Your task to perform on an android device: turn on javascript in the chrome app Image 0: 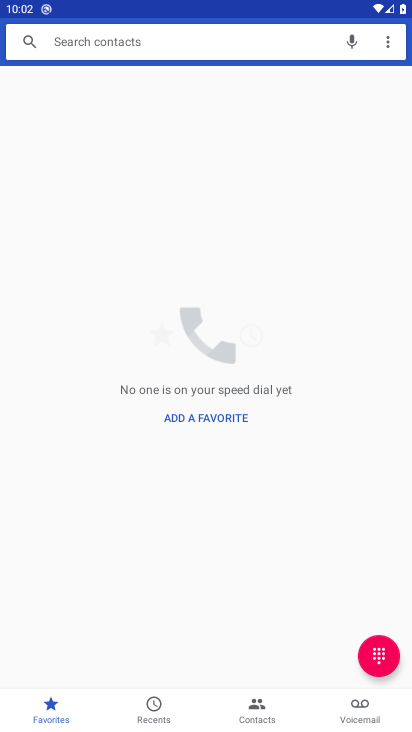
Step 0: press home button
Your task to perform on an android device: turn on javascript in the chrome app Image 1: 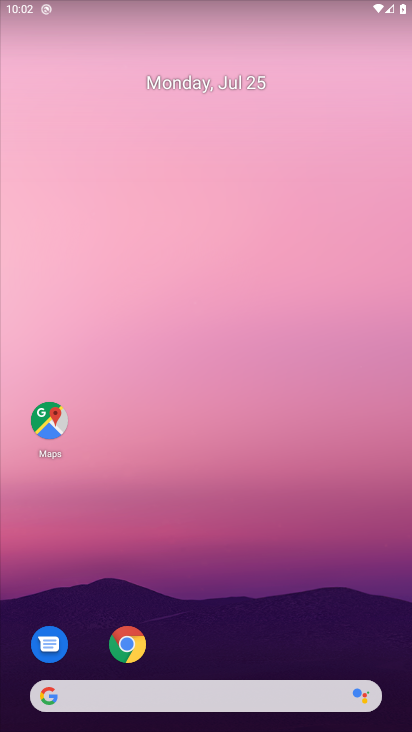
Step 1: click (123, 638)
Your task to perform on an android device: turn on javascript in the chrome app Image 2: 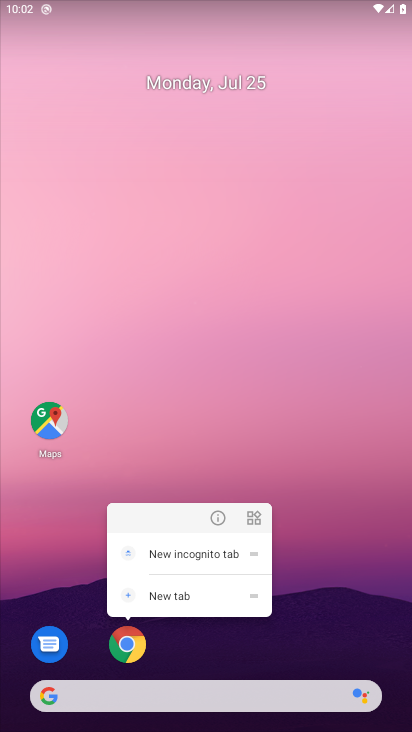
Step 2: click (125, 643)
Your task to perform on an android device: turn on javascript in the chrome app Image 3: 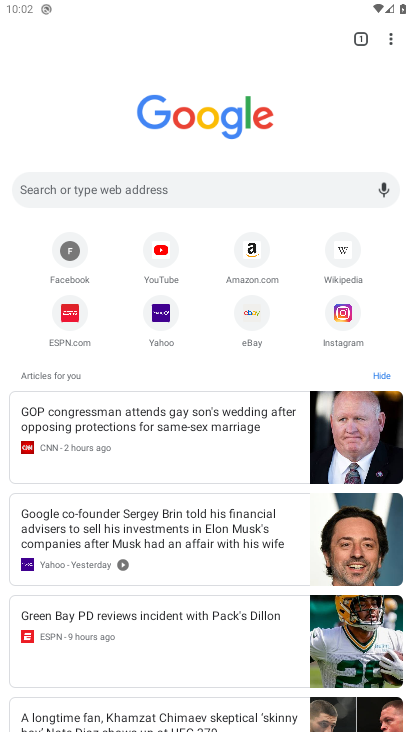
Step 3: drag from (391, 33) to (262, 323)
Your task to perform on an android device: turn on javascript in the chrome app Image 4: 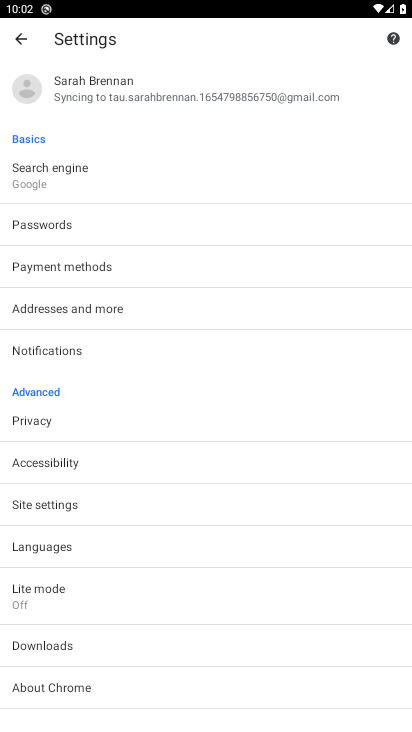
Step 4: click (70, 503)
Your task to perform on an android device: turn on javascript in the chrome app Image 5: 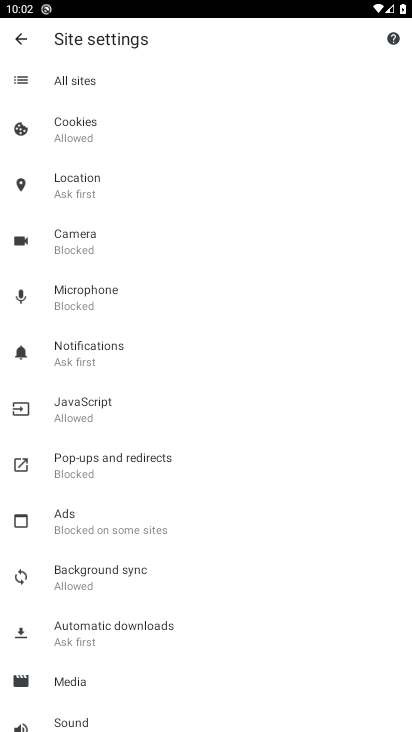
Step 5: click (96, 401)
Your task to perform on an android device: turn on javascript in the chrome app Image 6: 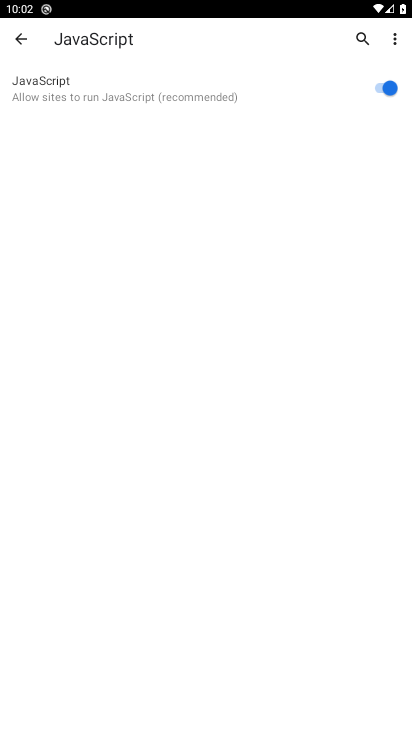
Step 6: task complete